Your task to perform on an android device: Open maps Image 0: 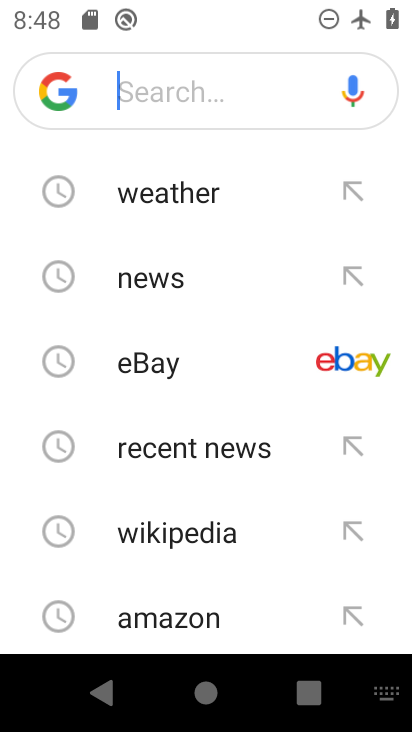
Step 0: press home button
Your task to perform on an android device: Open maps Image 1: 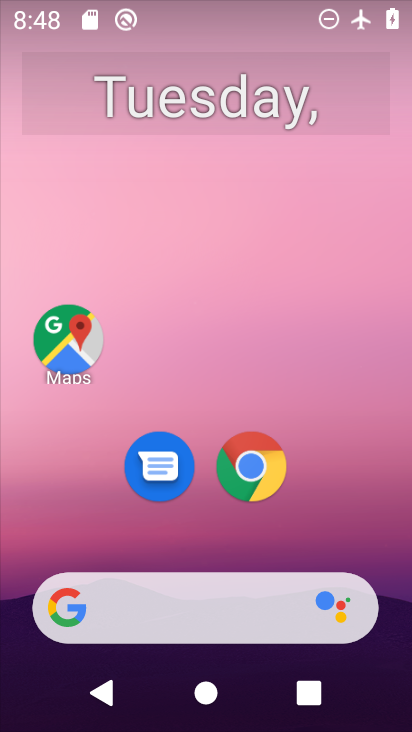
Step 1: click (78, 351)
Your task to perform on an android device: Open maps Image 2: 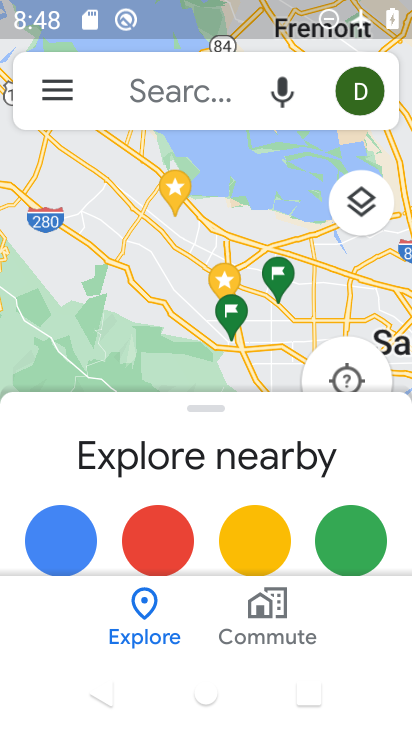
Step 2: task complete